Your task to perform on an android device: Turn on the flashlight Image 0: 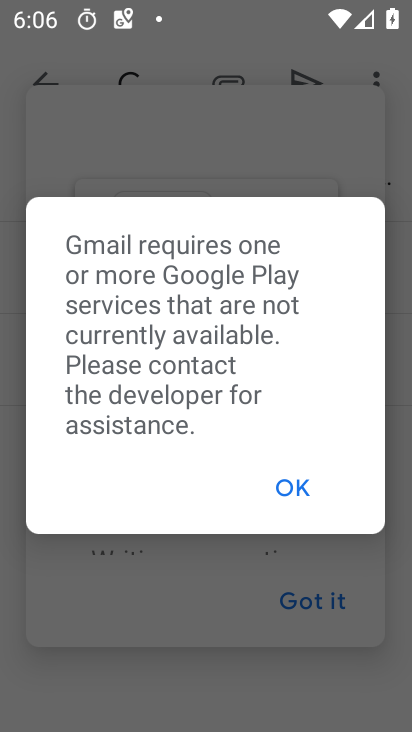
Step 0: press home button
Your task to perform on an android device: Turn on the flashlight Image 1: 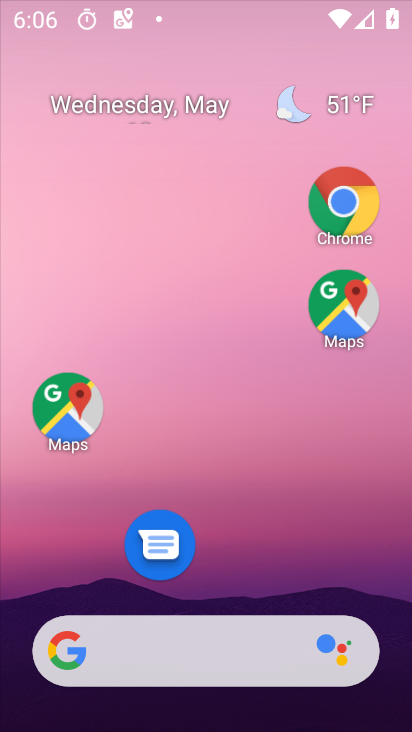
Step 1: task complete